Your task to perform on an android device: choose inbox layout in the gmail app Image 0: 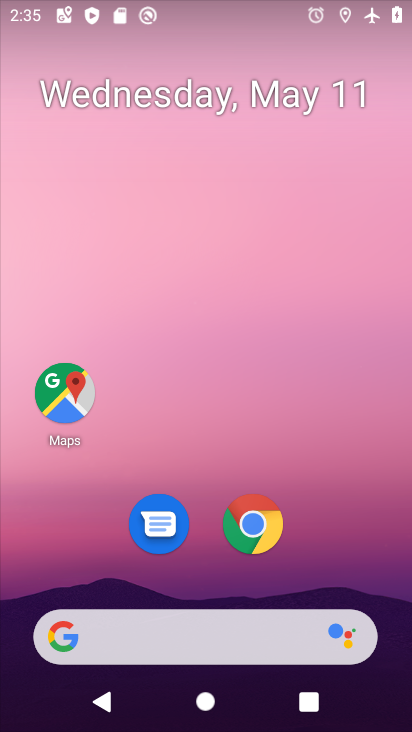
Step 0: drag from (333, 516) to (348, 79)
Your task to perform on an android device: choose inbox layout in the gmail app Image 1: 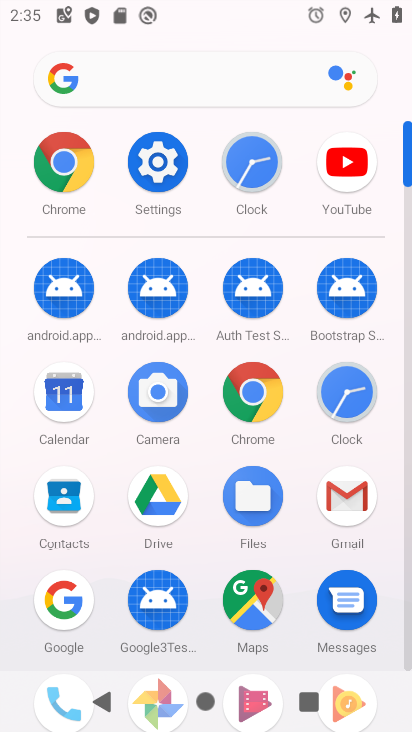
Step 1: click (343, 495)
Your task to perform on an android device: choose inbox layout in the gmail app Image 2: 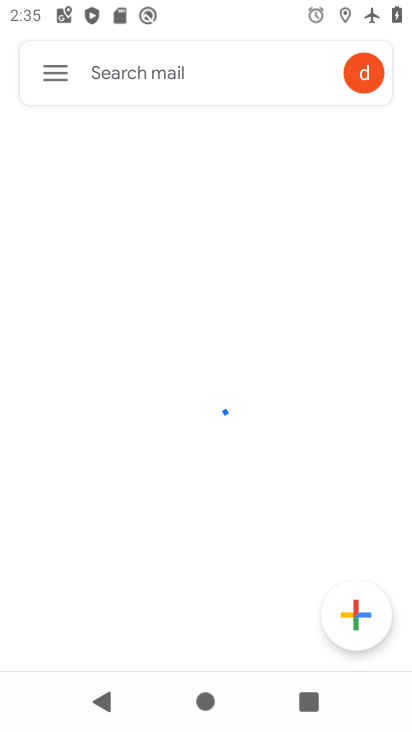
Step 2: click (61, 69)
Your task to perform on an android device: choose inbox layout in the gmail app Image 3: 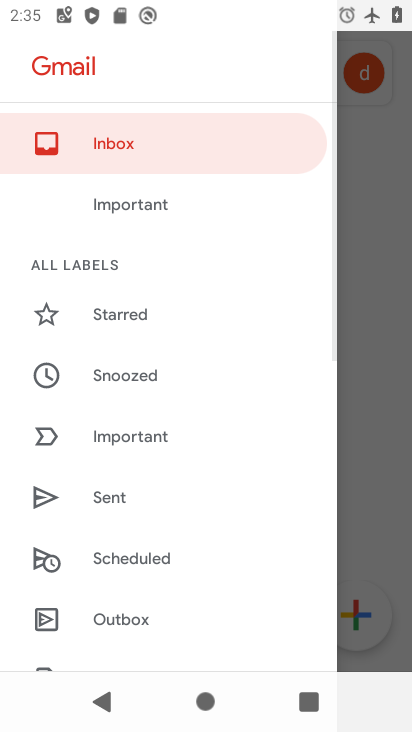
Step 3: drag from (140, 528) to (156, 61)
Your task to perform on an android device: choose inbox layout in the gmail app Image 4: 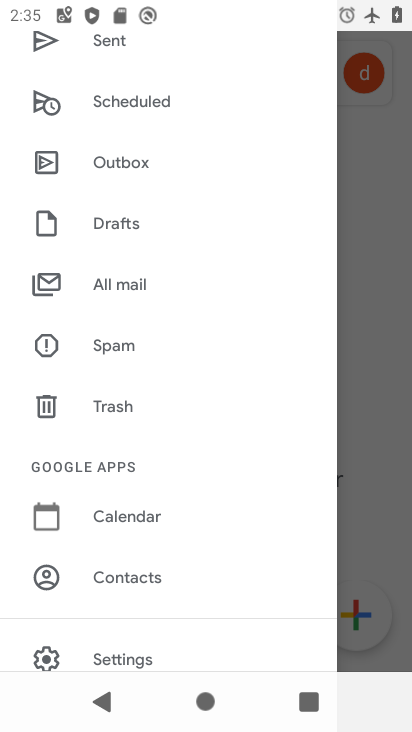
Step 4: click (133, 658)
Your task to perform on an android device: choose inbox layout in the gmail app Image 5: 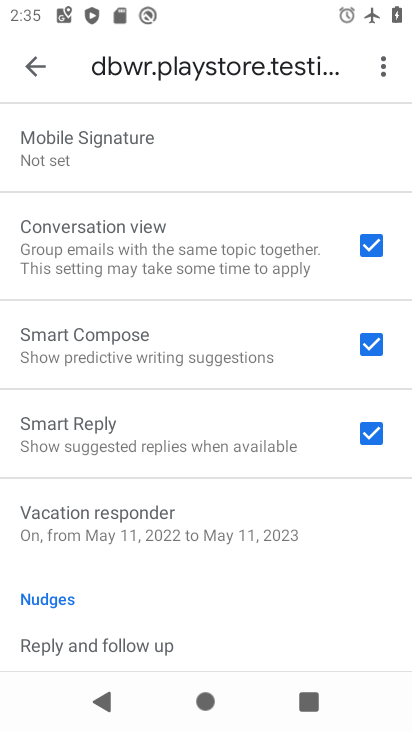
Step 5: drag from (206, 230) to (184, 711)
Your task to perform on an android device: choose inbox layout in the gmail app Image 6: 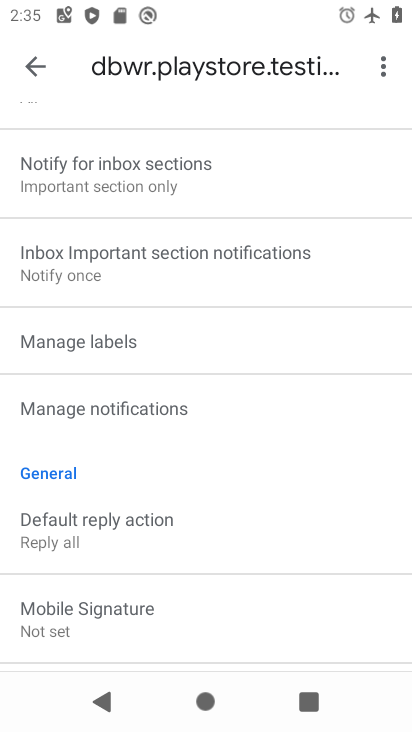
Step 6: drag from (196, 304) to (172, 555)
Your task to perform on an android device: choose inbox layout in the gmail app Image 7: 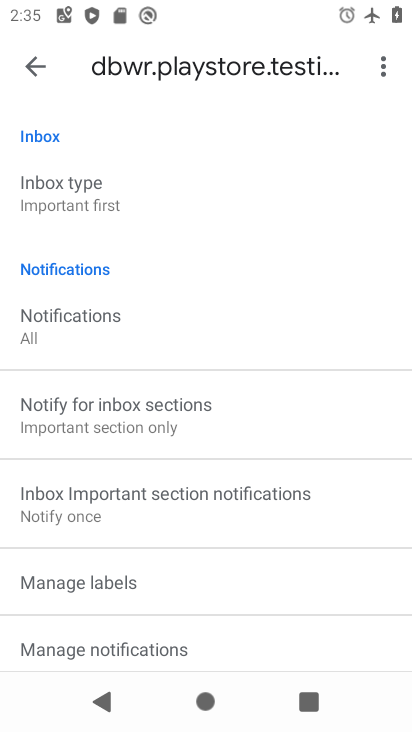
Step 7: click (78, 188)
Your task to perform on an android device: choose inbox layout in the gmail app Image 8: 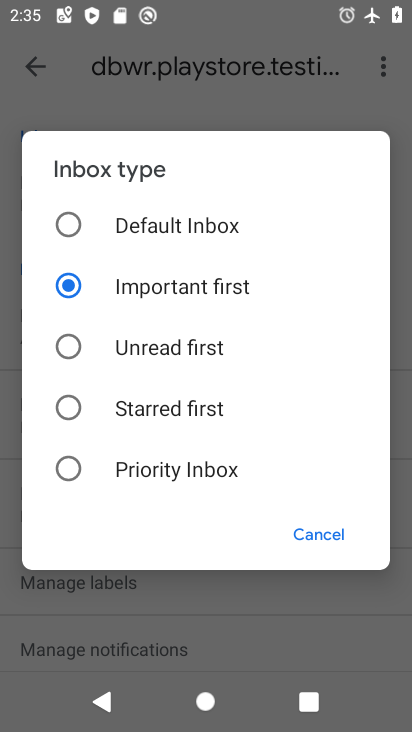
Step 8: click (73, 215)
Your task to perform on an android device: choose inbox layout in the gmail app Image 9: 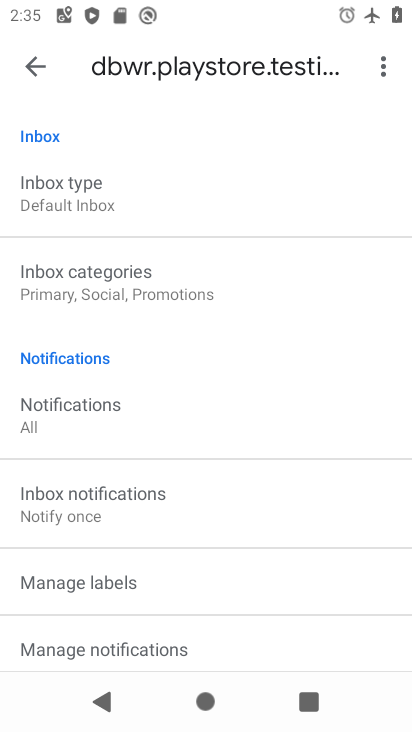
Step 9: task complete